Your task to perform on an android device: turn on the 12-hour format for clock Image 0: 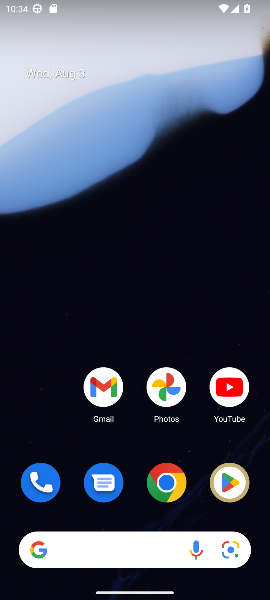
Step 0: drag from (70, 402) to (64, 43)
Your task to perform on an android device: turn on the 12-hour format for clock Image 1: 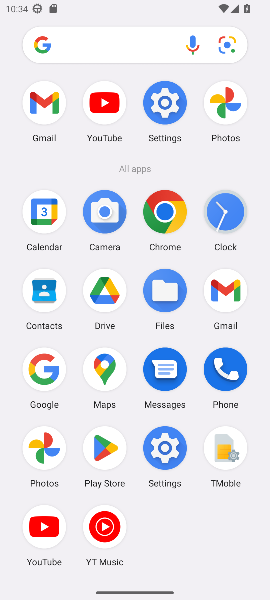
Step 1: click (236, 205)
Your task to perform on an android device: turn on the 12-hour format for clock Image 2: 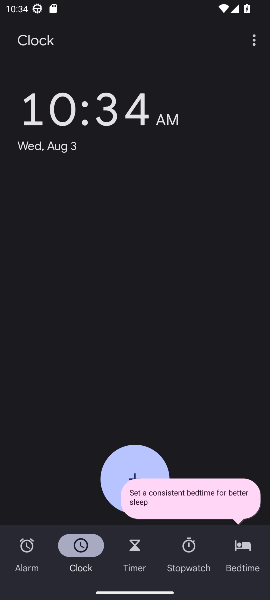
Step 2: task complete